Your task to perform on an android device: What's on my calendar today? Image 0: 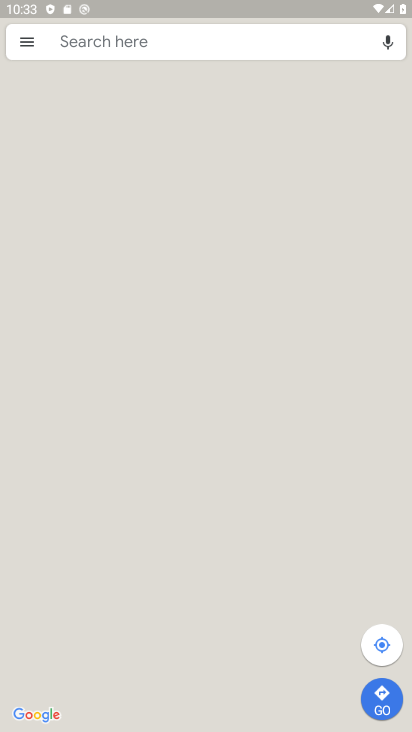
Step 0: press home button
Your task to perform on an android device: What's on my calendar today? Image 1: 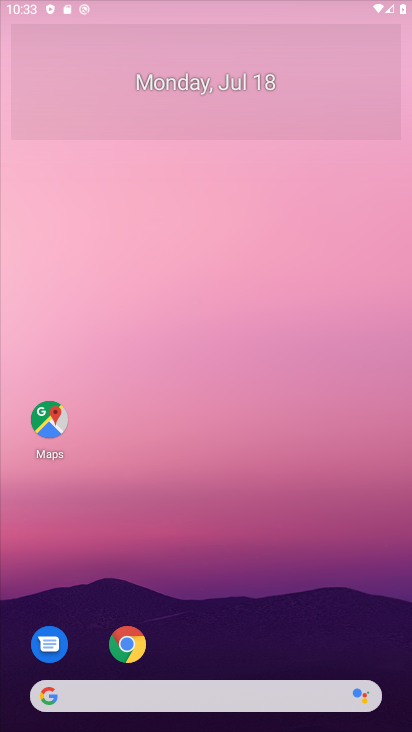
Step 1: drag from (232, 670) to (281, 131)
Your task to perform on an android device: What's on my calendar today? Image 2: 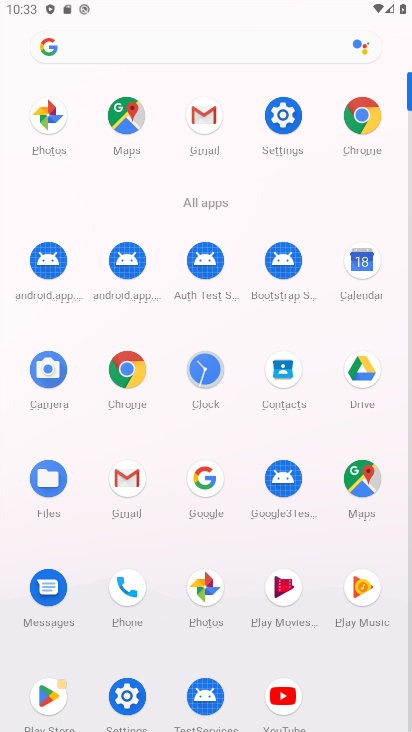
Step 2: click (358, 266)
Your task to perform on an android device: What's on my calendar today? Image 3: 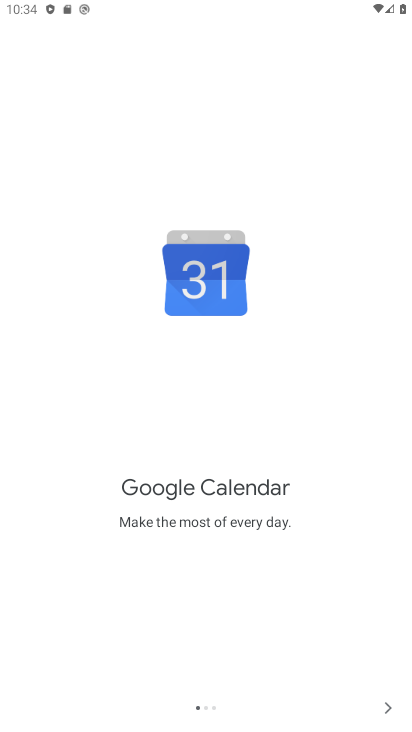
Step 3: click (394, 703)
Your task to perform on an android device: What's on my calendar today? Image 4: 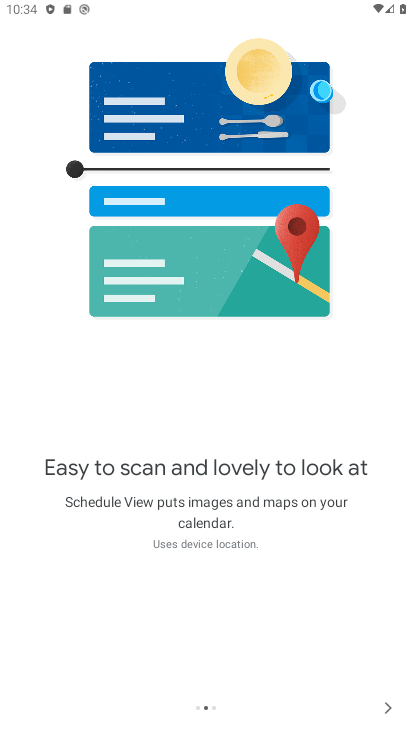
Step 4: click (391, 706)
Your task to perform on an android device: What's on my calendar today? Image 5: 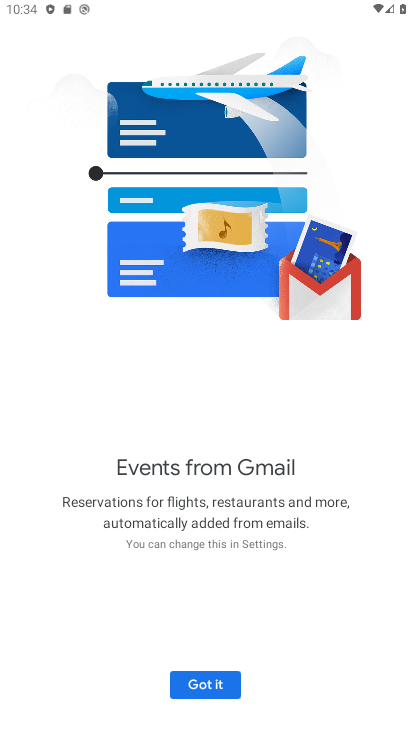
Step 5: click (194, 682)
Your task to perform on an android device: What's on my calendar today? Image 6: 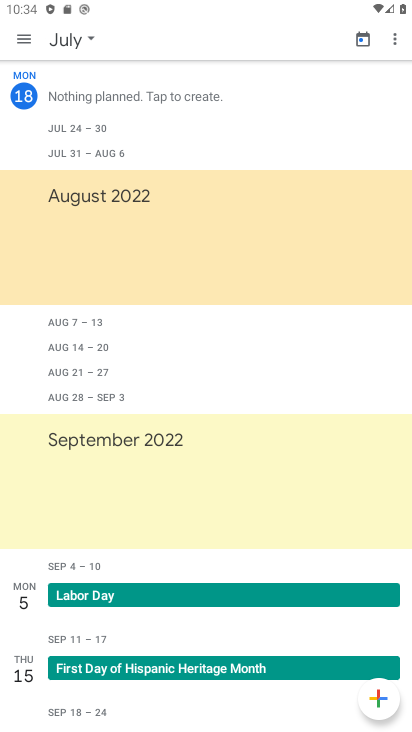
Step 6: click (70, 41)
Your task to perform on an android device: What's on my calendar today? Image 7: 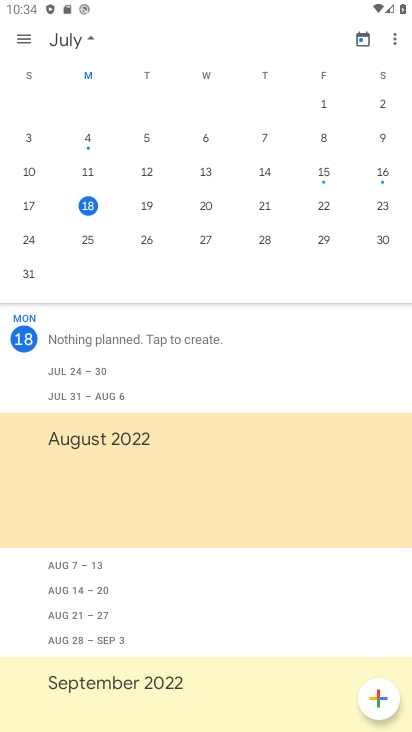
Step 7: click (86, 205)
Your task to perform on an android device: What's on my calendar today? Image 8: 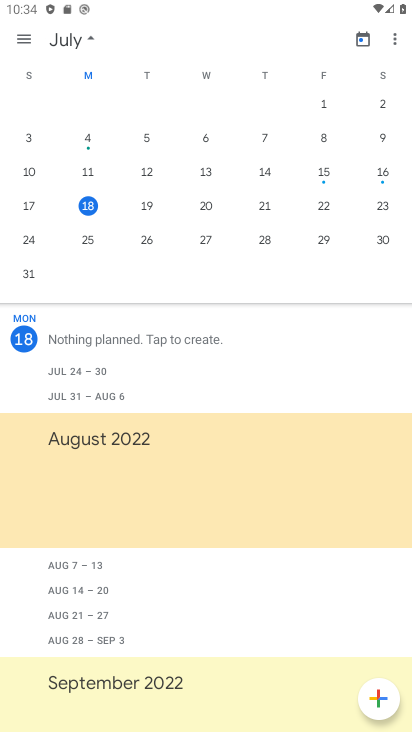
Step 8: task complete